Your task to perform on an android device: set default search engine in the chrome app Image 0: 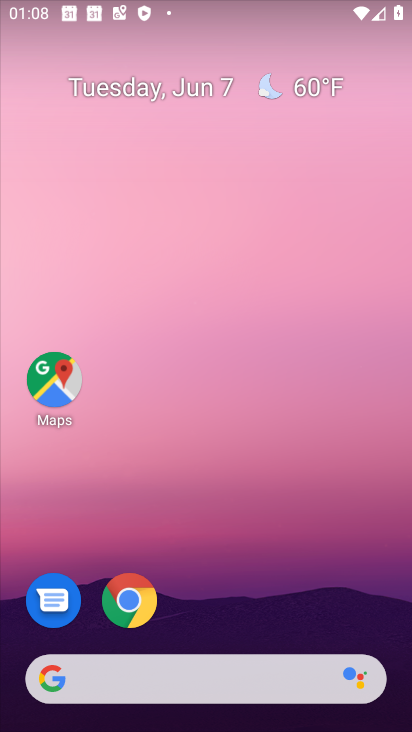
Step 0: click (130, 602)
Your task to perform on an android device: set default search engine in the chrome app Image 1: 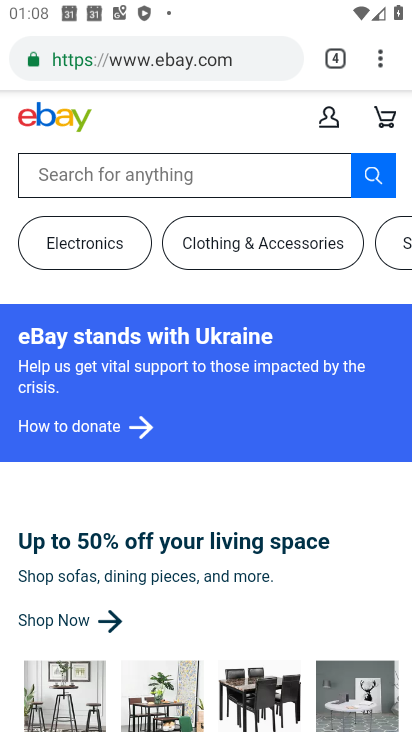
Step 1: click (377, 62)
Your task to perform on an android device: set default search engine in the chrome app Image 2: 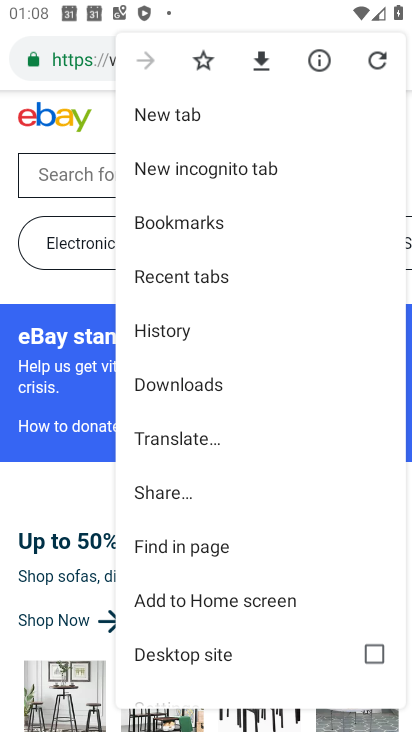
Step 2: drag from (182, 624) to (179, 331)
Your task to perform on an android device: set default search engine in the chrome app Image 3: 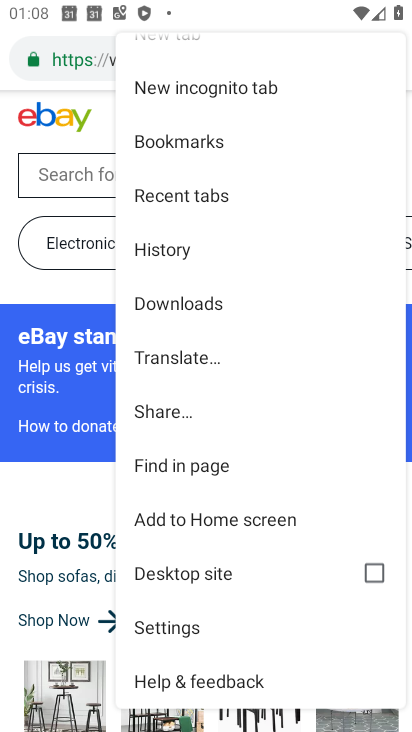
Step 3: click (161, 625)
Your task to perform on an android device: set default search engine in the chrome app Image 4: 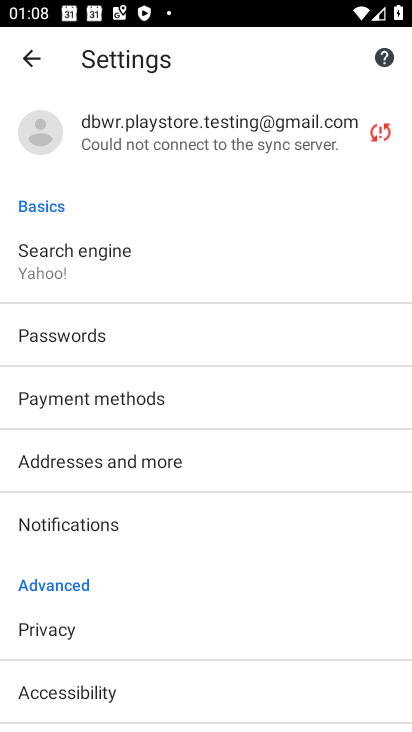
Step 4: click (82, 260)
Your task to perform on an android device: set default search engine in the chrome app Image 5: 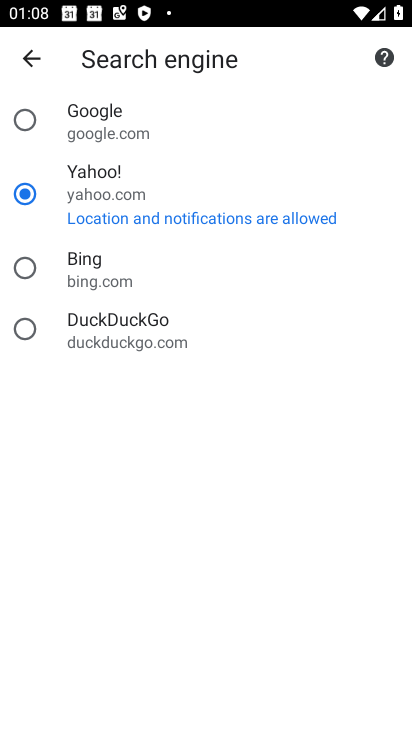
Step 5: click (28, 120)
Your task to perform on an android device: set default search engine in the chrome app Image 6: 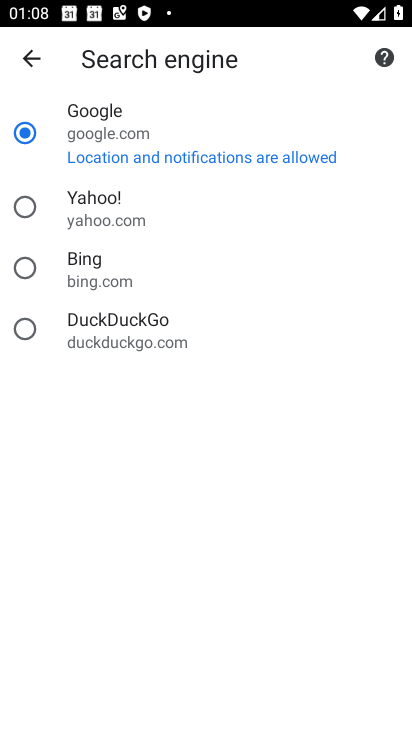
Step 6: task complete